Your task to perform on an android device: turn on translation in the chrome app Image 0: 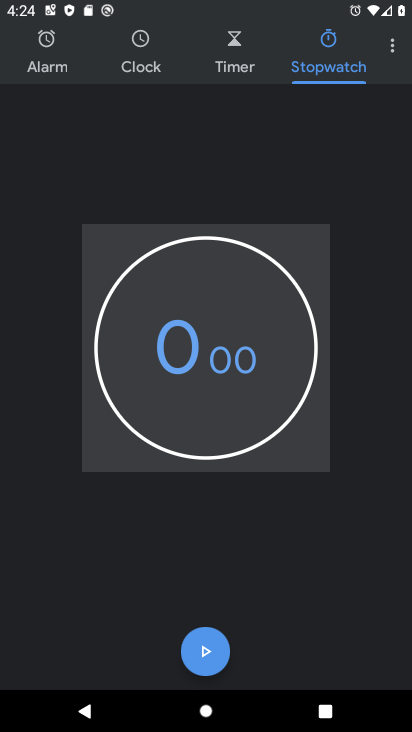
Step 0: press home button
Your task to perform on an android device: turn on translation in the chrome app Image 1: 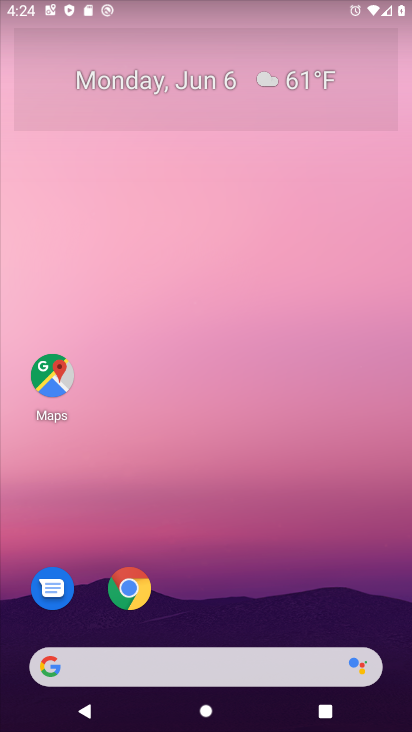
Step 1: click (136, 591)
Your task to perform on an android device: turn on translation in the chrome app Image 2: 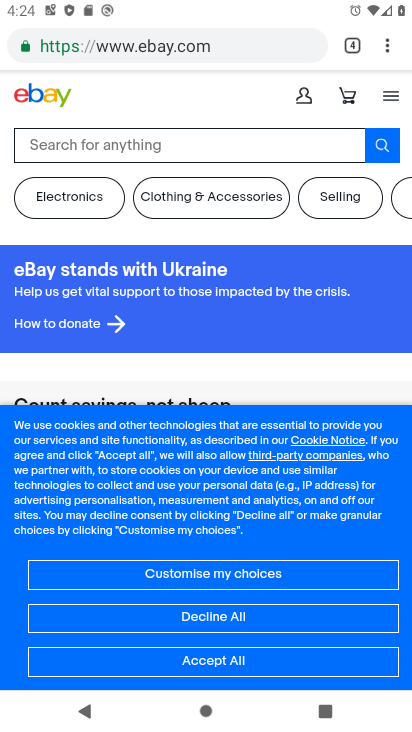
Step 2: click (380, 55)
Your task to perform on an android device: turn on translation in the chrome app Image 3: 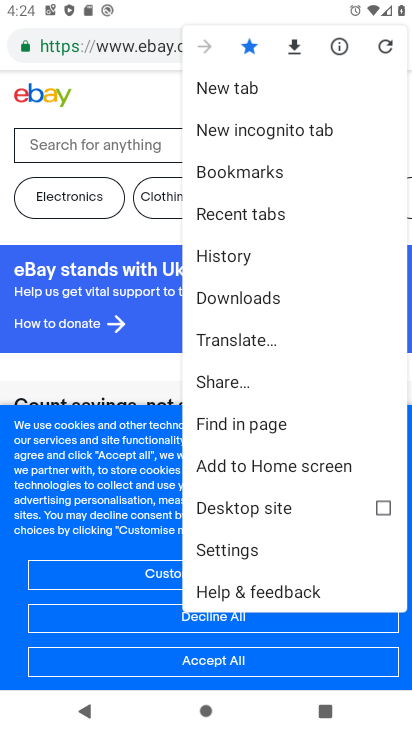
Step 3: click (293, 558)
Your task to perform on an android device: turn on translation in the chrome app Image 4: 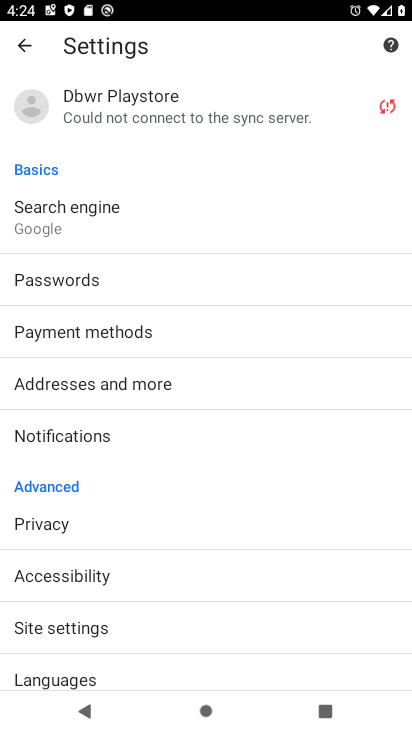
Step 4: click (179, 677)
Your task to perform on an android device: turn on translation in the chrome app Image 5: 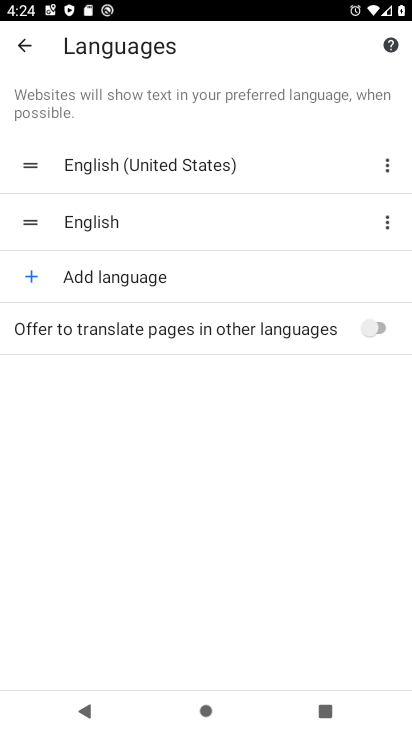
Step 5: click (372, 329)
Your task to perform on an android device: turn on translation in the chrome app Image 6: 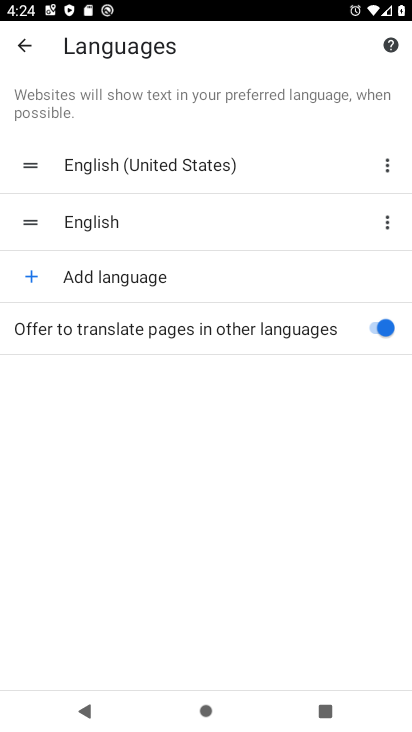
Step 6: task complete